Your task to perform on an android device: refresh tabs in the chrome app Image 0: 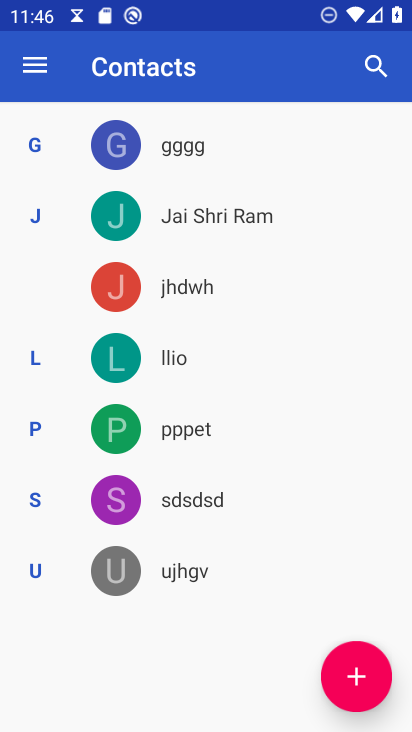
Step 0: press home button
Your task to perform on an android device: refresh tabs in the chrome app Image 1: 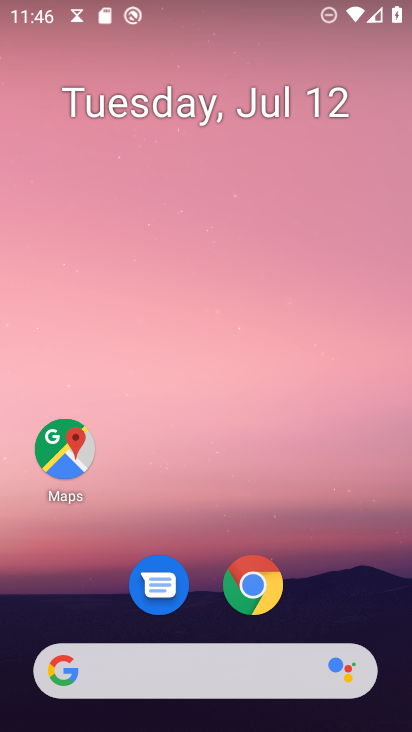
Step 1: click (242, 592)
Your task to perform on an android device: refresh tabs in the chrome app Image 2: 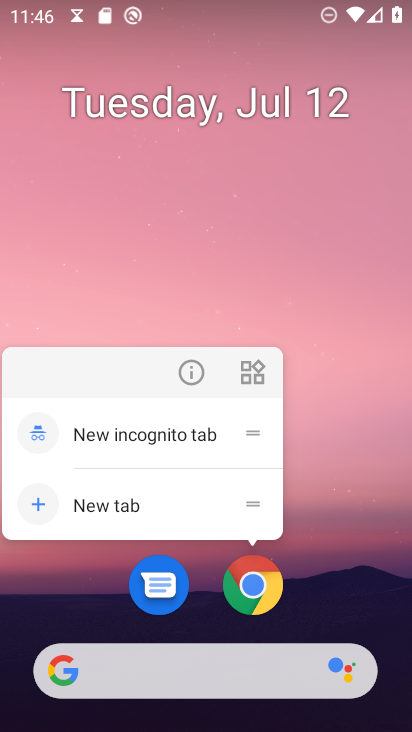
Step 2: click (242, 592)
Your task to perform on an android device: refresh tabs in the chrome app Image 3: 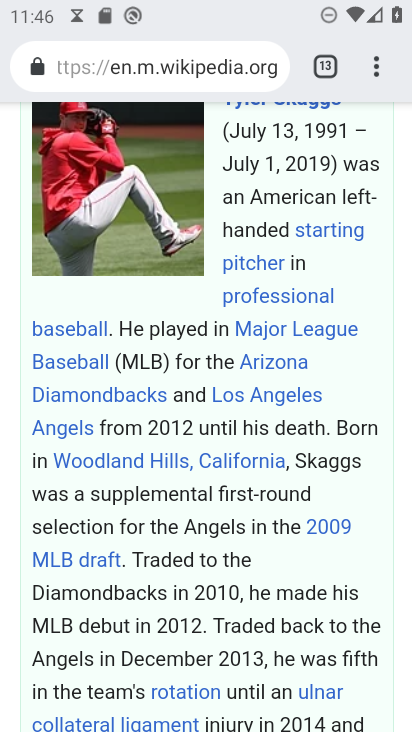
Step 3: click (375, 84)
Your task to perform on an android device: refresh tabs in the chrome app Image 4: 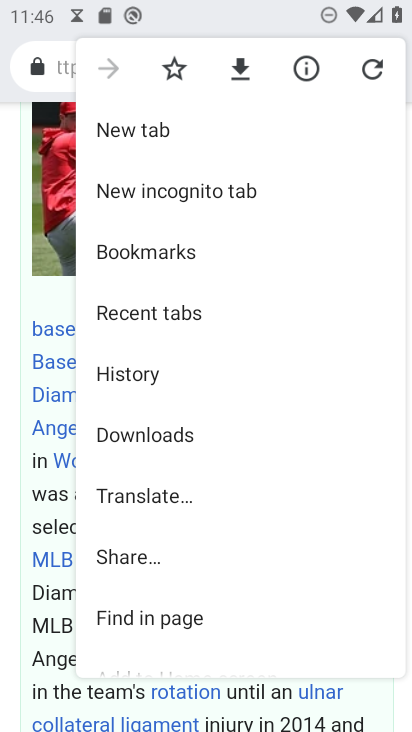
Step 4: click (366, 64)
Your task to perform on an android device: refresh tabs in the chrome app Image 5: 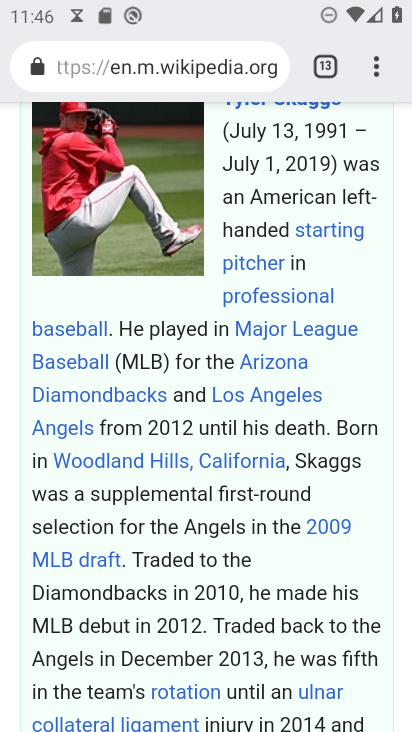
Step 5: task complete